Your task to perform on an android device: What is the capital of Brazil? Image 0: 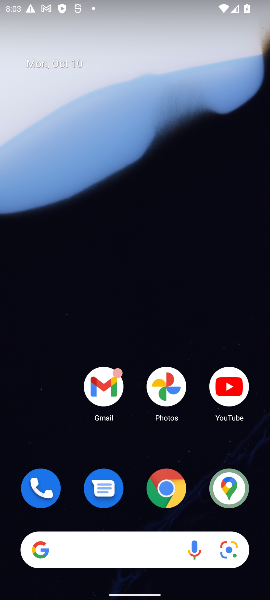
Step 0: drag from (137, 466) to (241, 97)
Your task to perform on an android device: What is the capital of Brazil? Image 1: 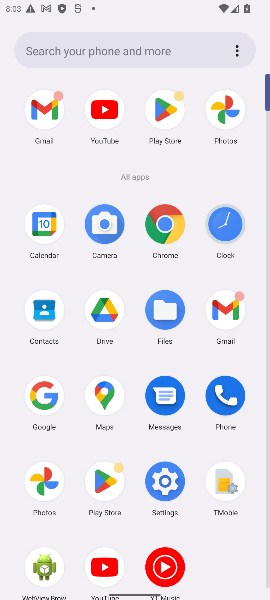
Step 1: click (165, 221)
Your task to perform on an android device: What is the capital of Brazil? Image 2: 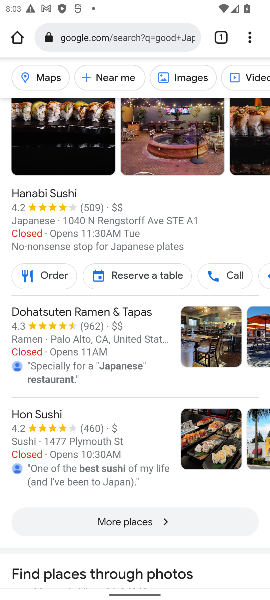
Step 2: click (169, 27)
Your task to perform on an android device: What is the capital of Brazil? Image 3: 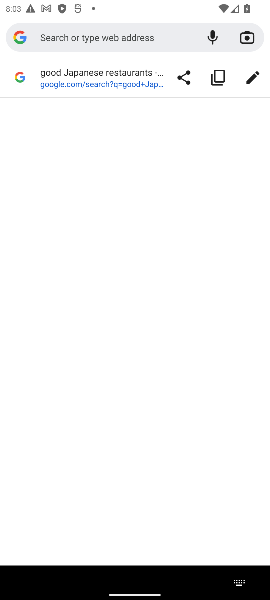
Step 3: type "What is the capital of Brazil?"
Your task to perform on an android device: What is the capital of Brazil? Image 4: 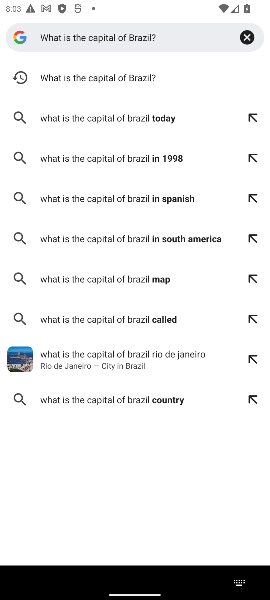
Step 4: press enter
Your task to perform on an android device: What is the capital of Brazil? Image 5: 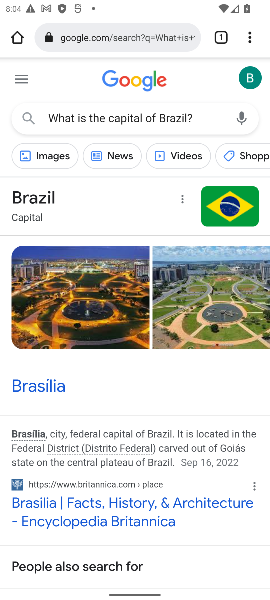
Step 5: task complete